Your task to perform on an android device: Go to sound settings Image 0: 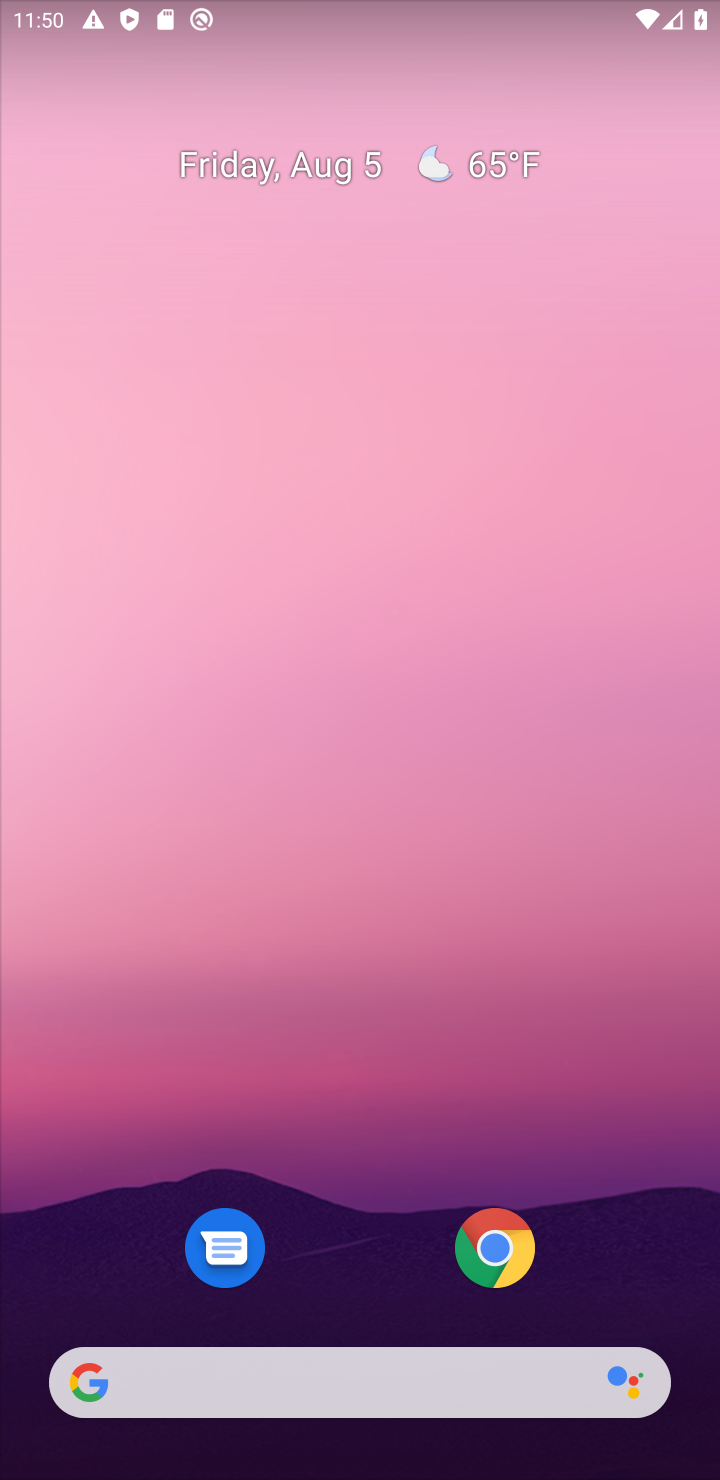
Step 0: press home button
Your task to perform on an android device: Go to sound settings Image 1: 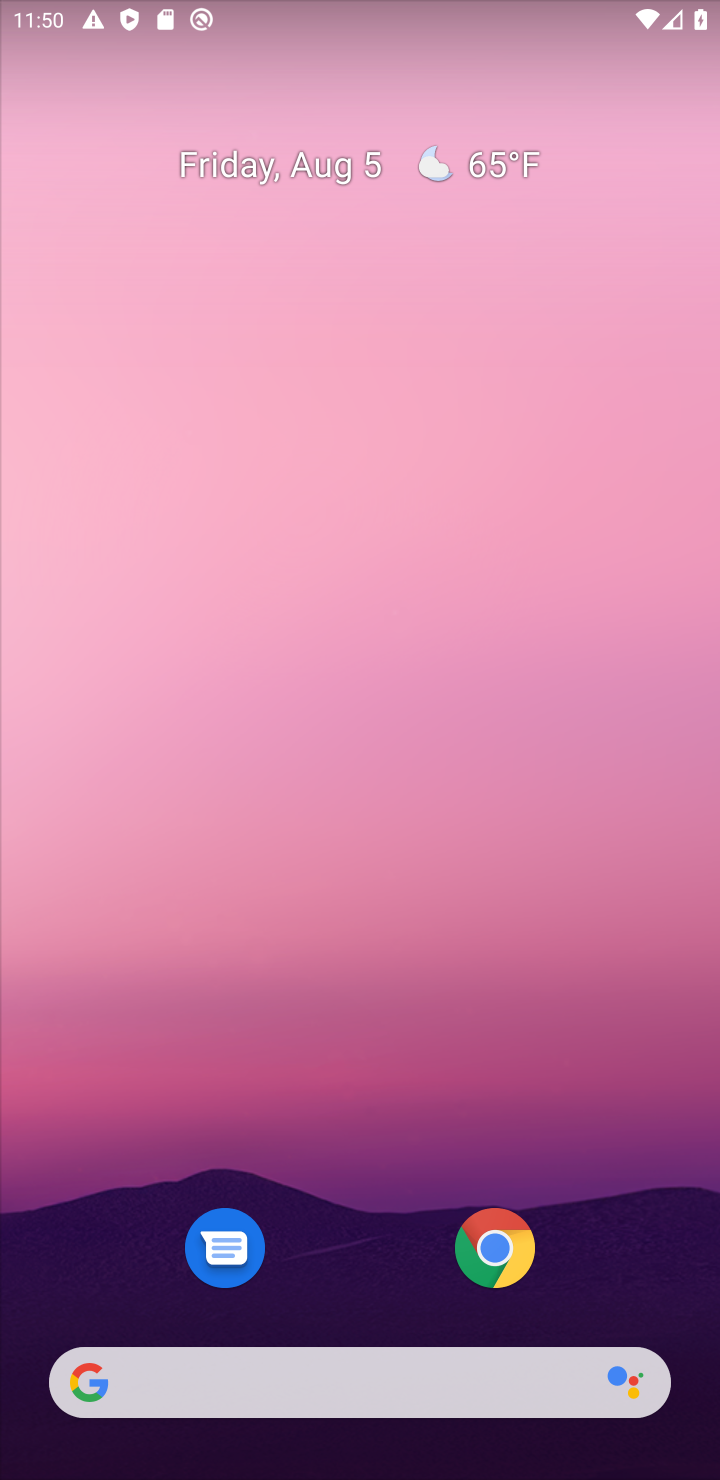
Step 1: press home button
Your task to perform on an android device: Go to sound settings Image 2: 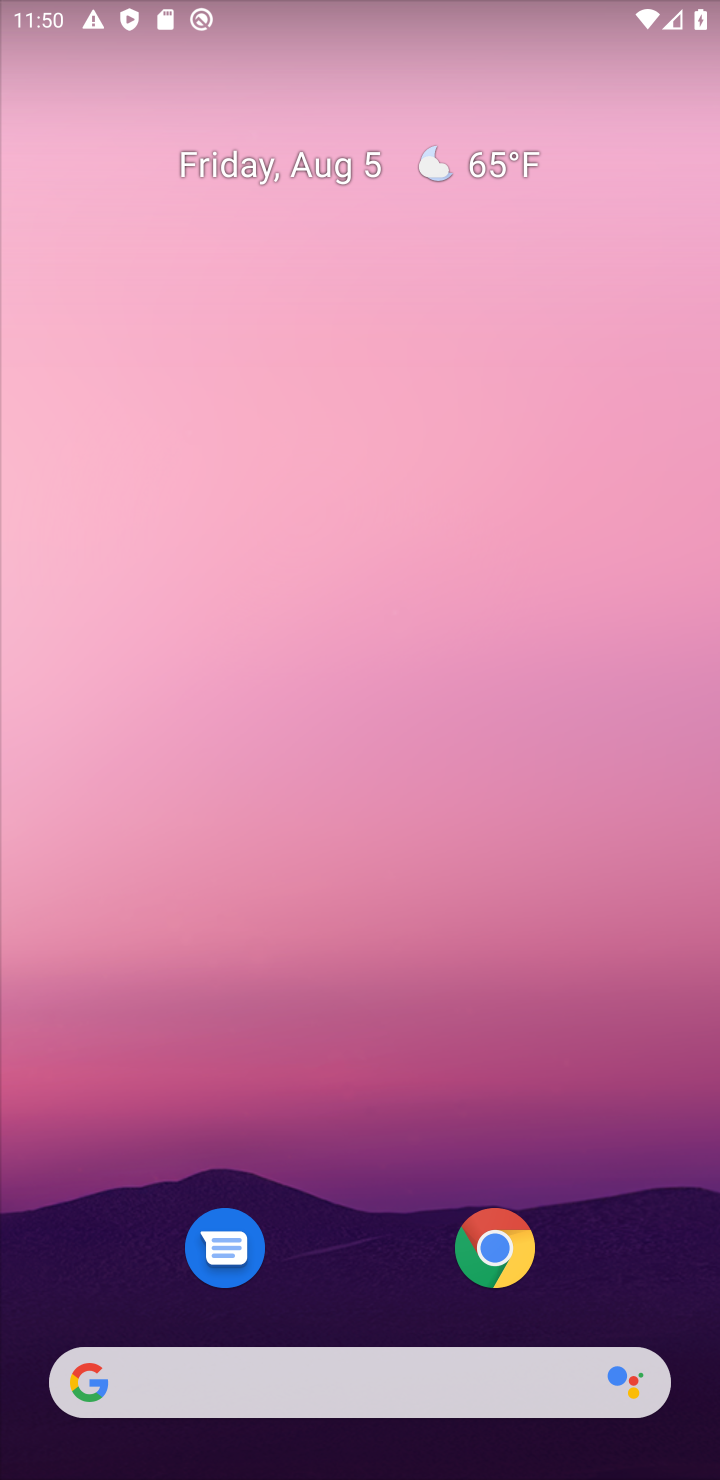
Step 2: drag from (361, 1320) to (374, 81)
Your task to perform on an android device: Go to sound settings Image 3: 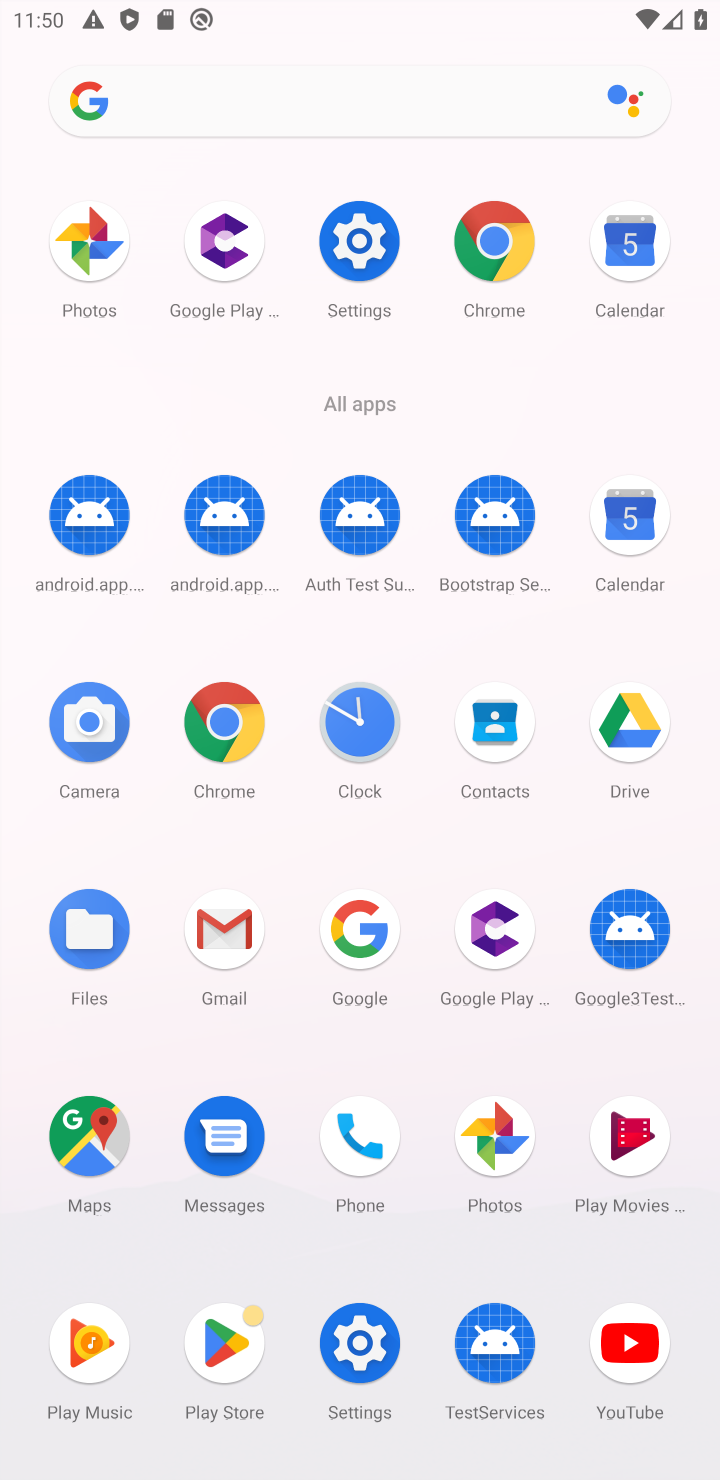
Step 3: click (357, 228)
Your task to perform on an android device: Go to sound settings Image 4: 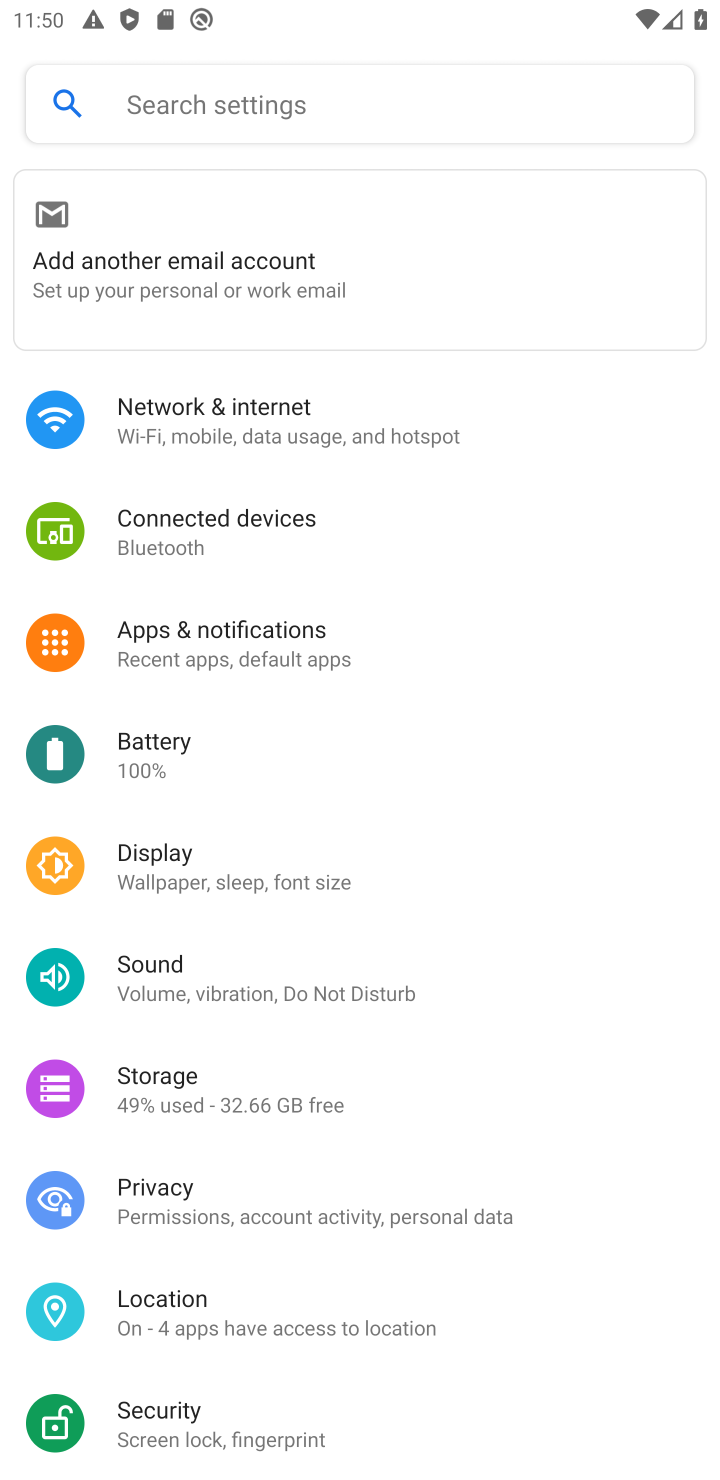
Step 4: click (199, 962)
Your task to perform on an android device: Go to sound settings Image 5: 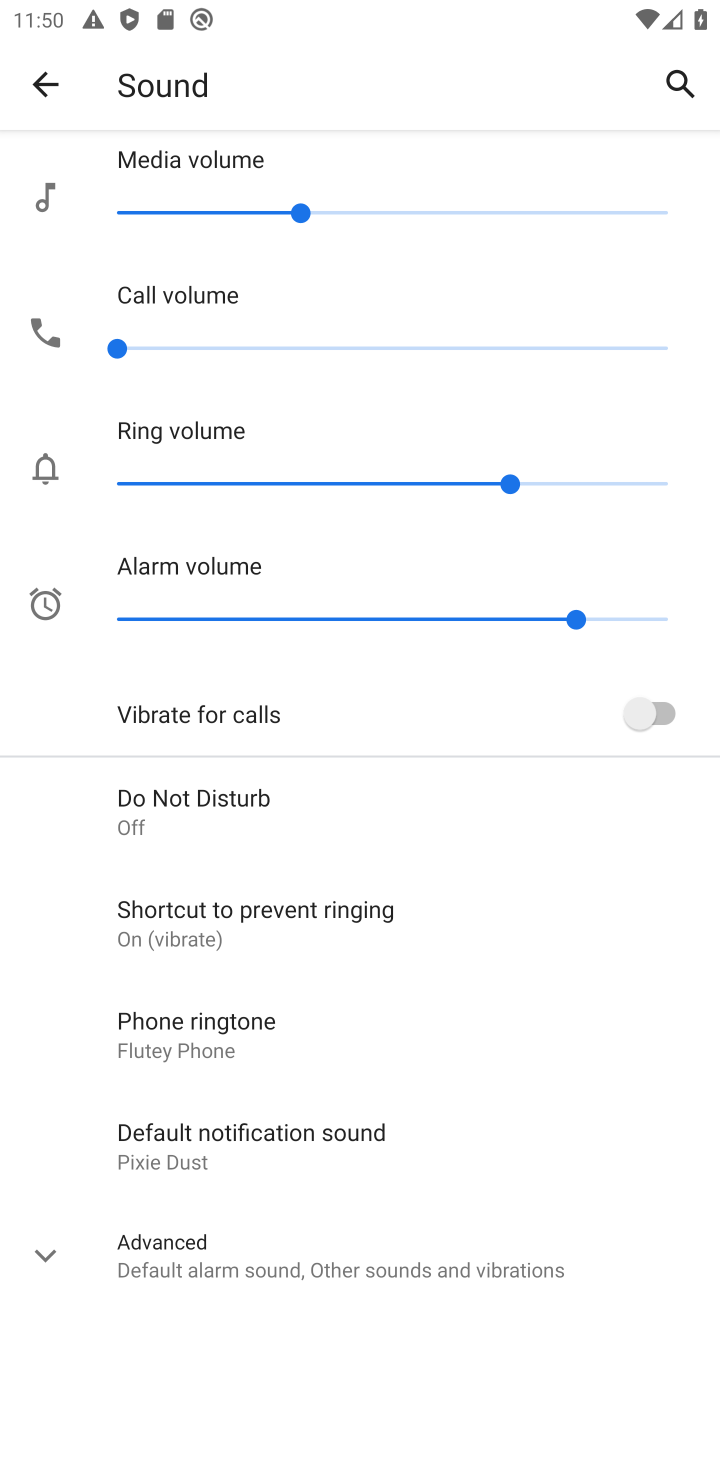
Step 5: click (39, 1249)
Your task to perform on an android device: Go to sound settings Image 6: 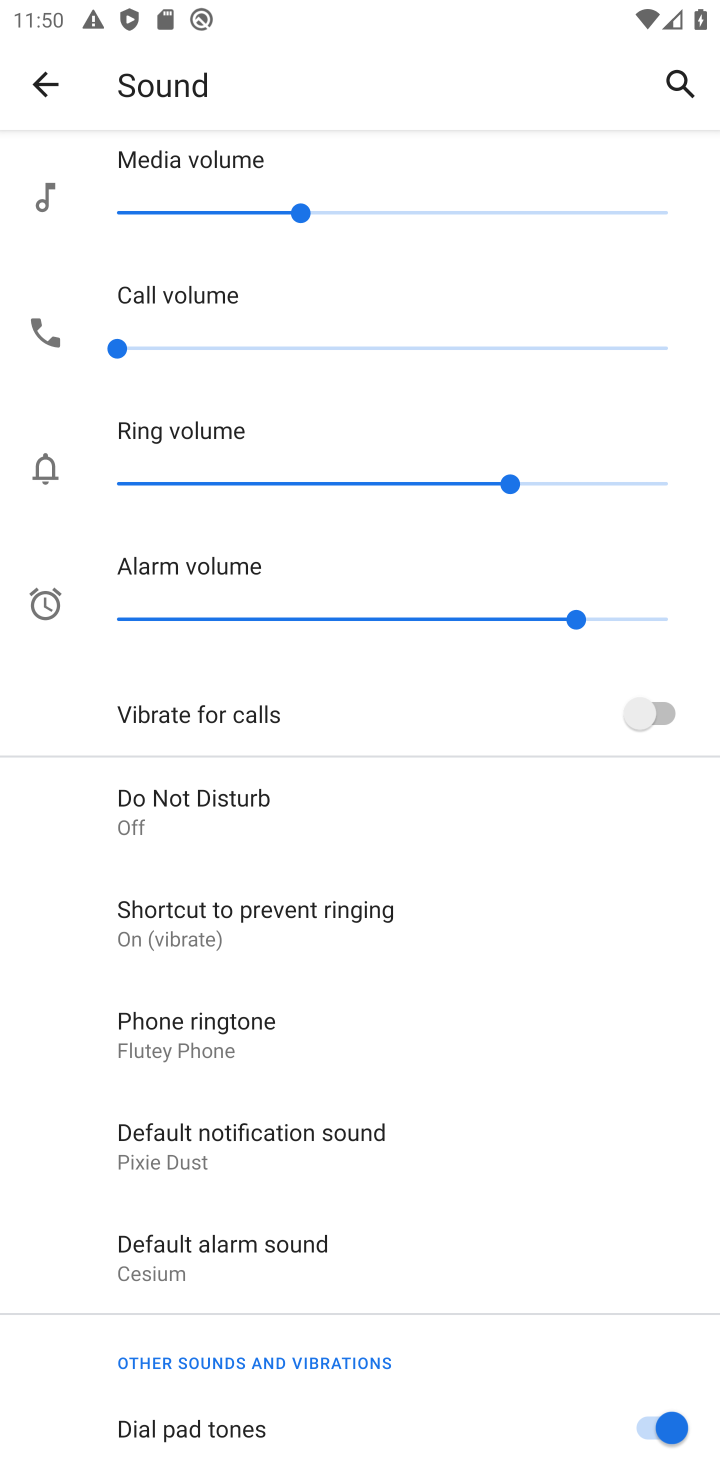
Step 6: task complete